Your task to perform on an android device: stop showing notifications on the lock screen Image 0: 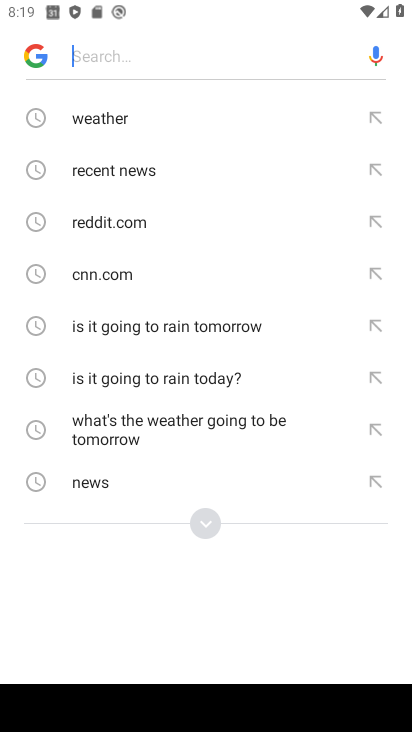
Step 0: press home button
Your task to perform on an android device: stop showing notifications on the lock screen Image 1: 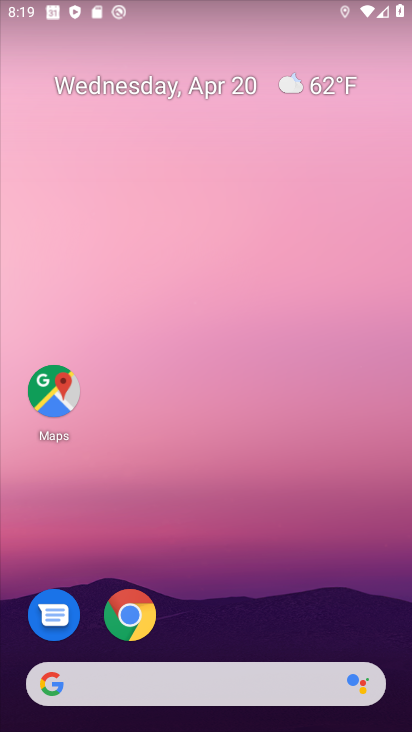
Step 1: drag from (253, 557) to (286, 108)
Your task to perform on an android device: stop showing notifications on the lock screen Image 2: 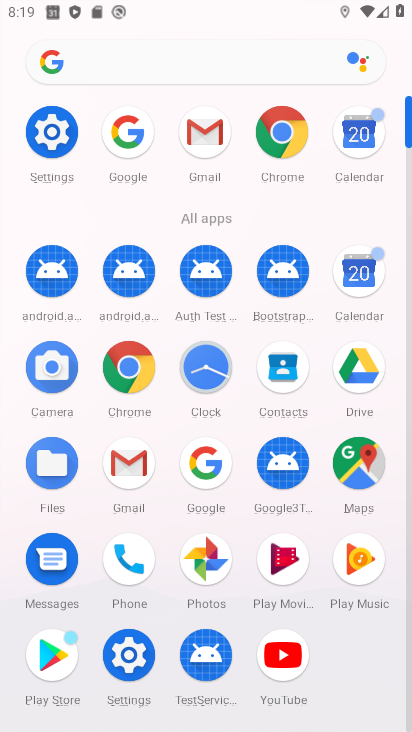
Step 2: click (51, 133)
Your task to perform on an android device: stop showing notifications on the lock screen Image 3: 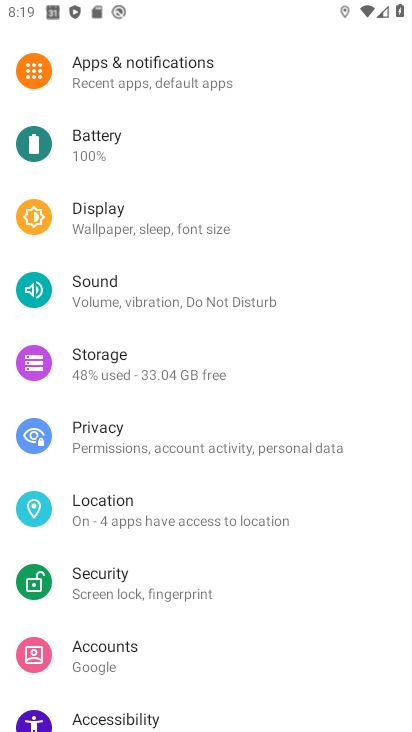
Step 3: click (159, 68)
Your task to perform on an android device: stop showing notifications on the lock screen Image 4: 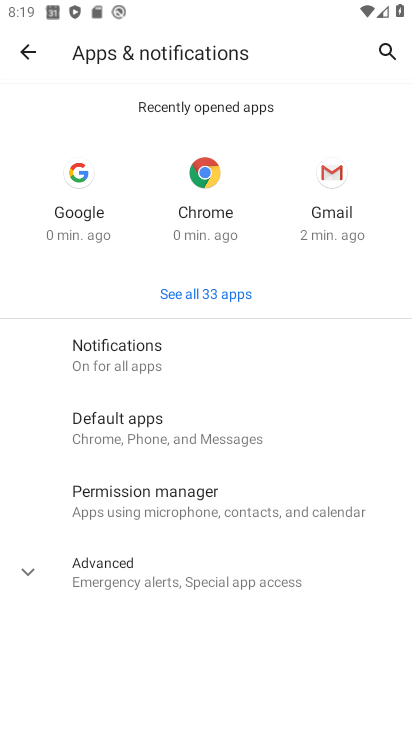
Step 4: click (117, 361)
Your task to perform on an android device: stop showing notifications on the lock screen Image 5: 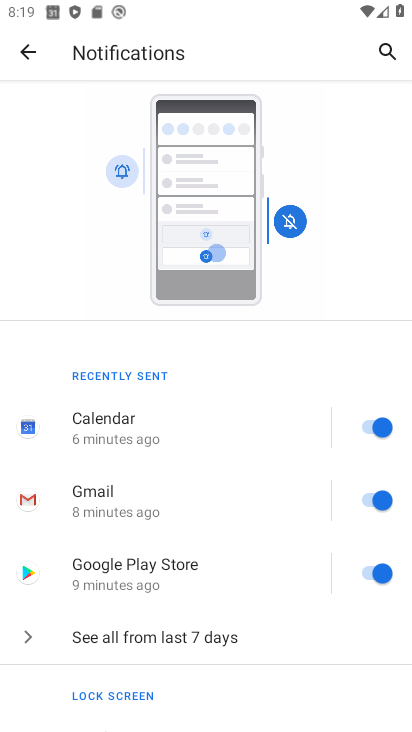
Step 5: drag from (219, 554) to (266, 190)
Your task to perform on an android device: stop showing notifications on the lock screen Image 6: 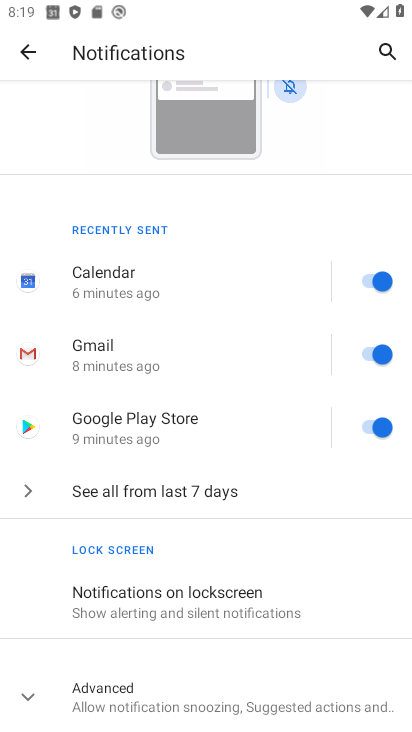
Step 6: click (196, 606)
Your task to perform on an android device: stop showing notifications on the lock screen Image 7: 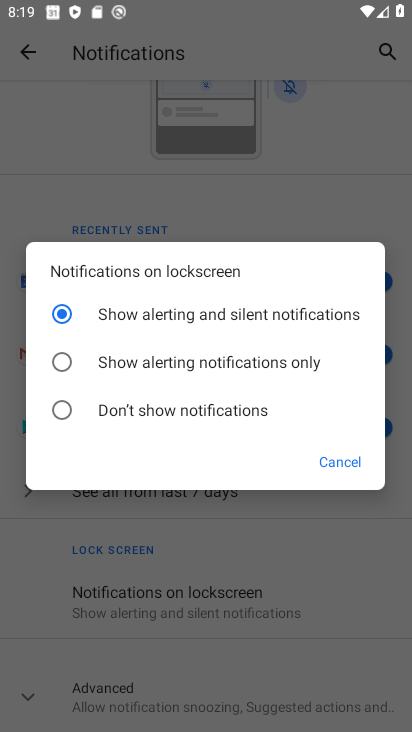
Step 7: click (61, 416)
Your task to perform on an android device: stop showing notifications on the lock screen Image 8: 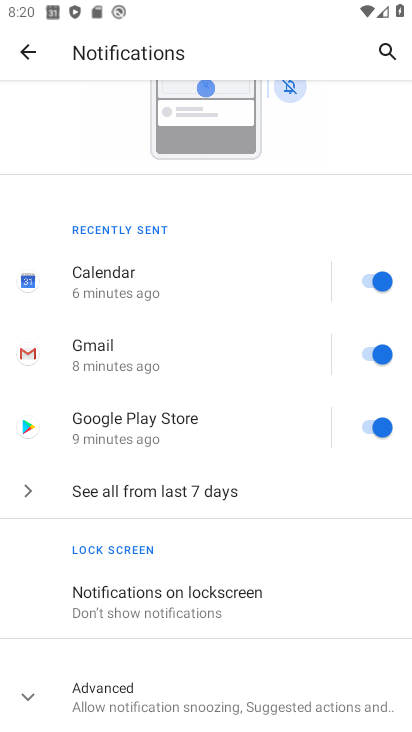
Step 8: task complete